Your task to perform on an android device: Go to settings Image 0: 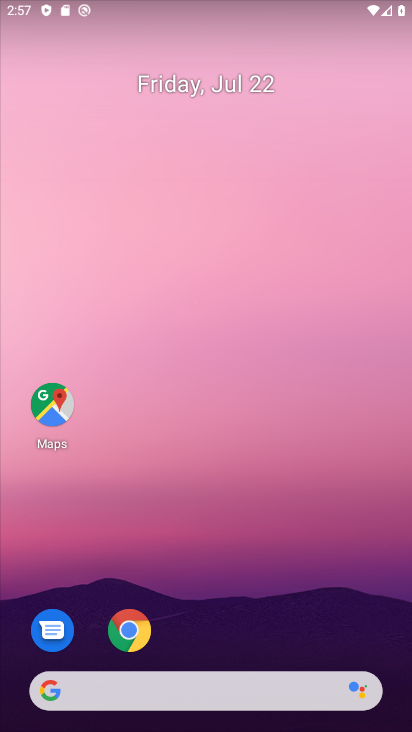
Step 0: drag from (206, 697) to (138, 373)
Your task to perform on an android device: Go to settings Image 1: 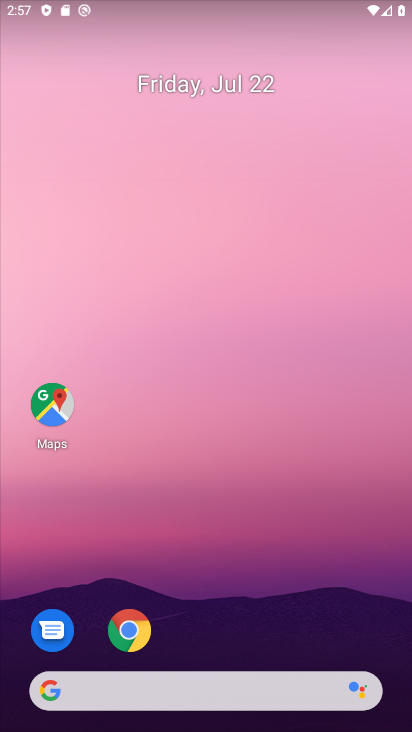
Step 1: drag from (242, 666) to (410, 130)
Your task to perform on an android device: Go to settings Image 2: 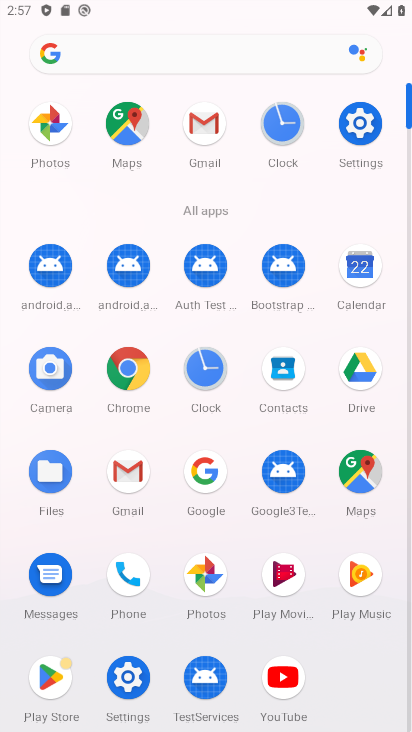
Step 2: click (358, 130)
Your task to perform on an android device: Go to settings Image 3: 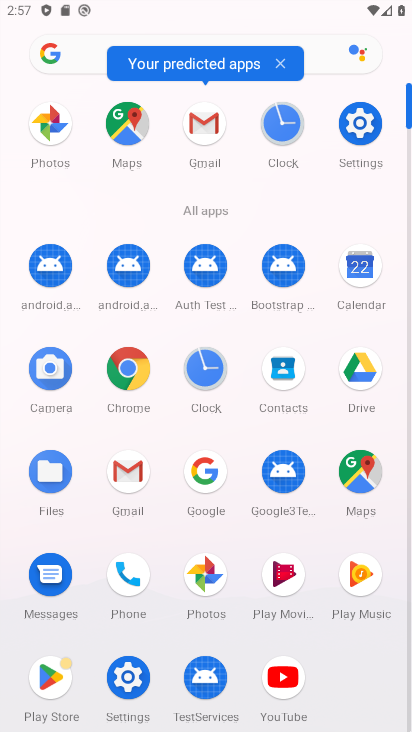
Step 3: click (346, 132)
Your task to perform on an android device: Go to settings Image 4: 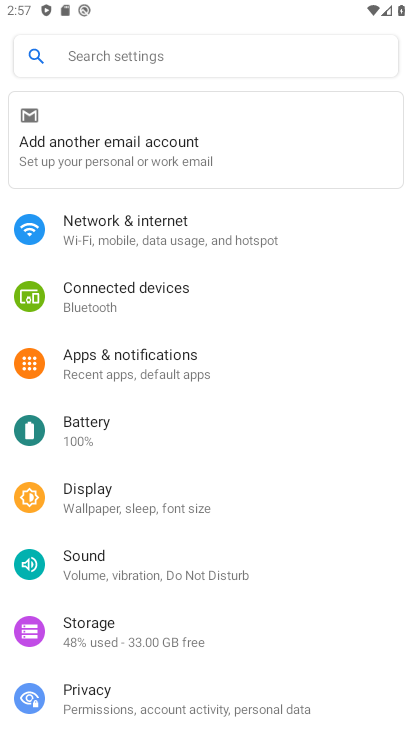
Step 4: task complete